Your task to perform on an android device: Open ESPN.com Image 0: 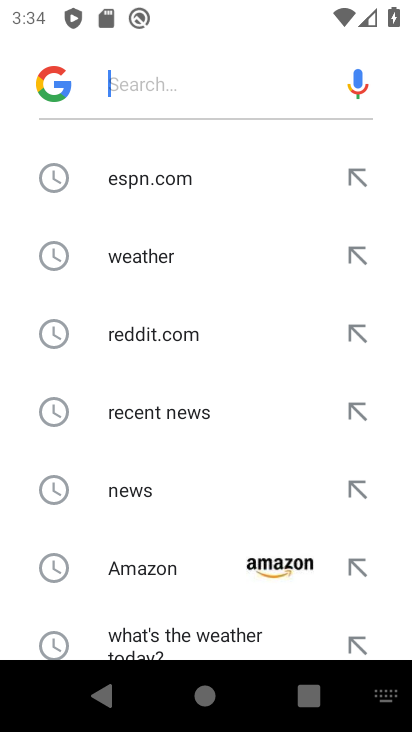
Step 0: press home button
Your task to perform on an android device: Open ESPN.com Image 1: 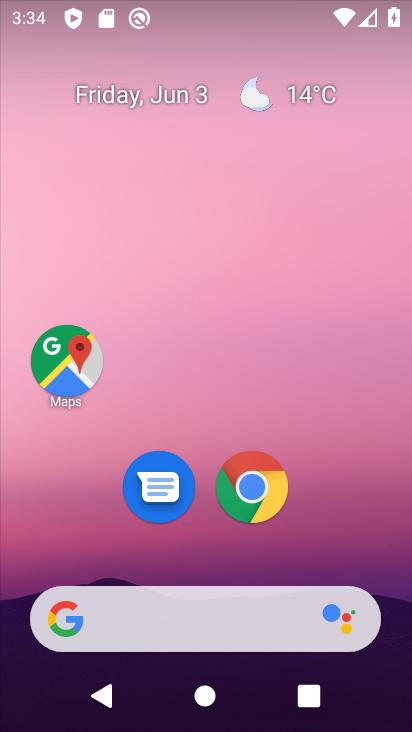
Step 1: click (268, 481)
Your task to perform on an android device: Open ESPN.com Image 2: 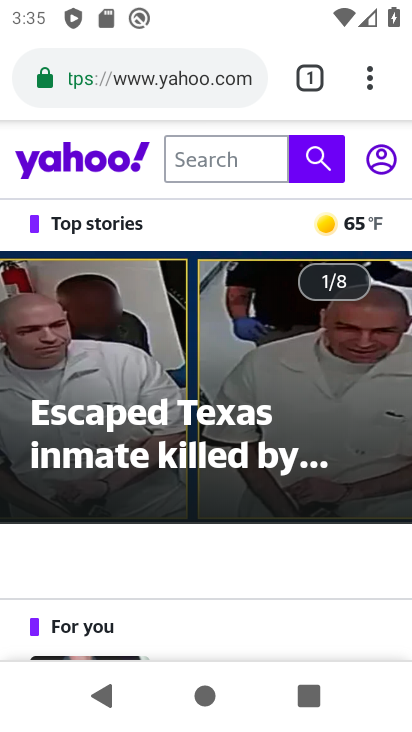
Step 2: click (302, 69)
Your task to perform on an android device: Open ESPN.com Image 3: 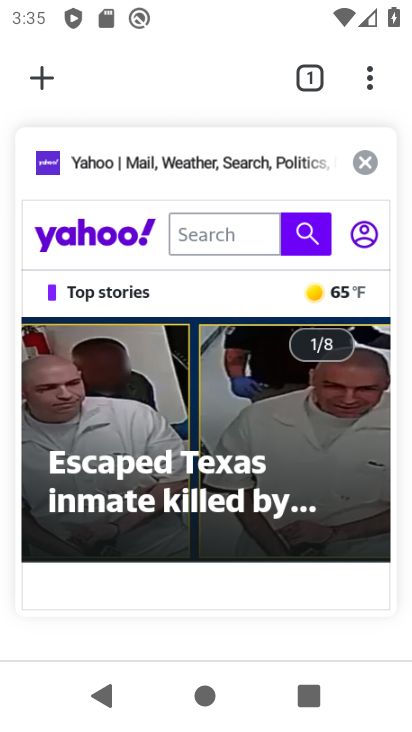
Step 3: click (36, 71)
Your task to perform on an android device: Open ESPN.com Image 4: 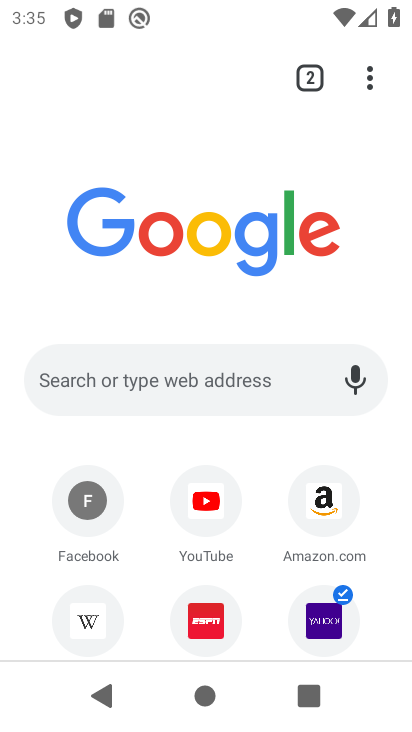
Step 4: click (207, 615)
Your task to perform on an android device: Open ESPN.com Image 5: 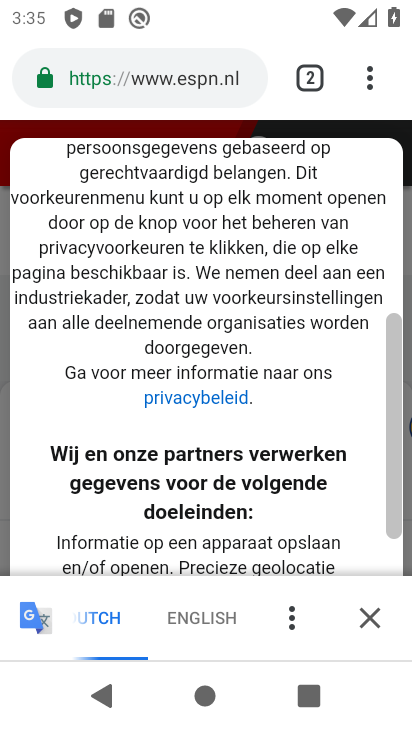
Step 5: task complete